Your task to perform on an android device: Search for seafood restaurants on Google Maps Image 0: 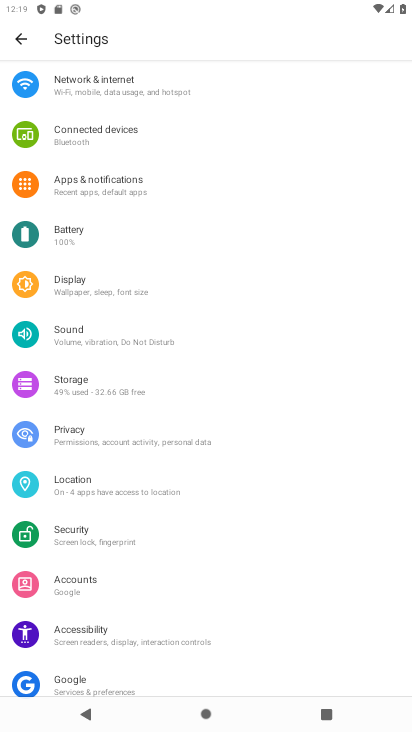
Step 0: press home button
Your task to perform on an android device: Search for seafood restaurants on Google Maps Image 1: 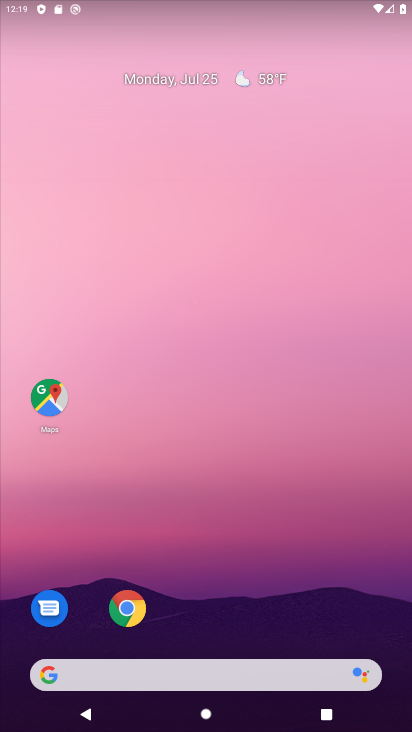
Step 1: click (49, 397)
Your task to perform on an android device: Search for seafood restaurants on Google Maps Image 2: 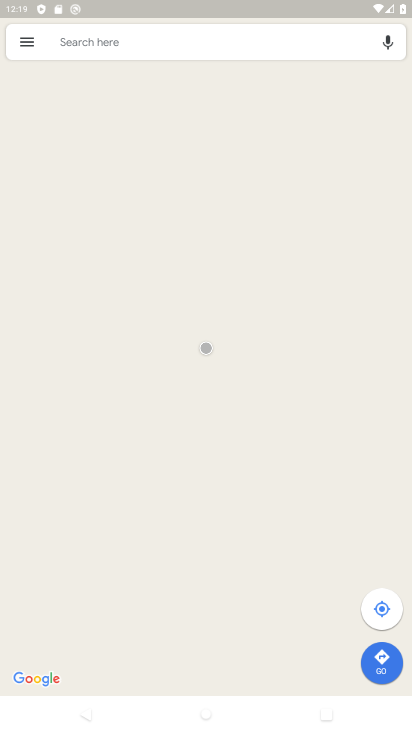
Step 2: click (214, 45)
Your task to perform on an android device: Search for seafood restaurants on Google Maps Image 3: 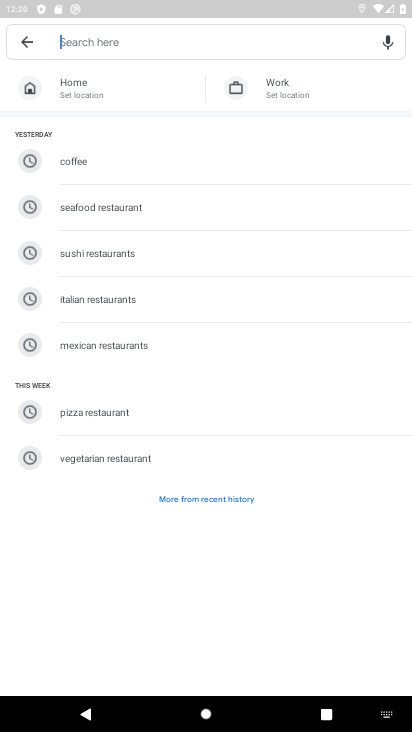
Step 3: type "seafood restaurants"
Your task to perform on an android device: Search for seafood restaurants on Google Maps Image 4: 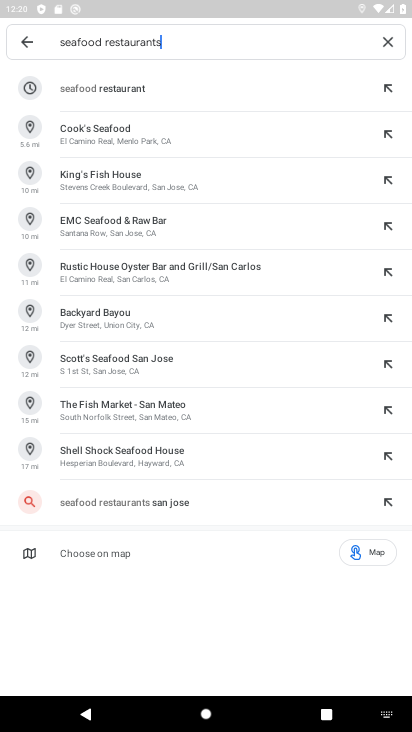
Step 4: click (135, 90)
Your task to perform on an android device: Search for seafood restaurants on Google Maps Image 5: 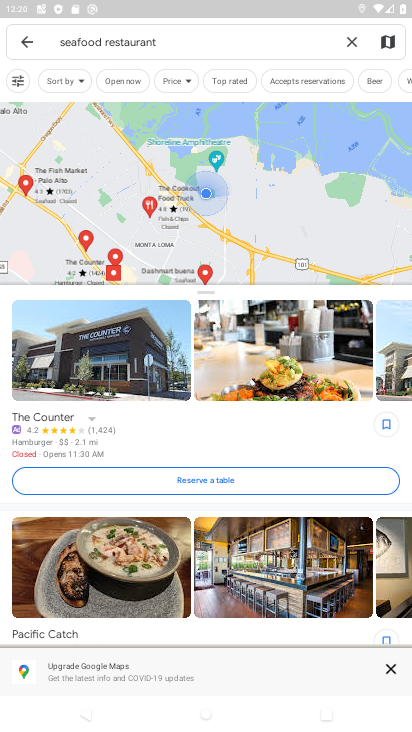
Step 5: task complete